Your task to perform on an android device: Open Youtube and go to the subscriptions tab Image 0: 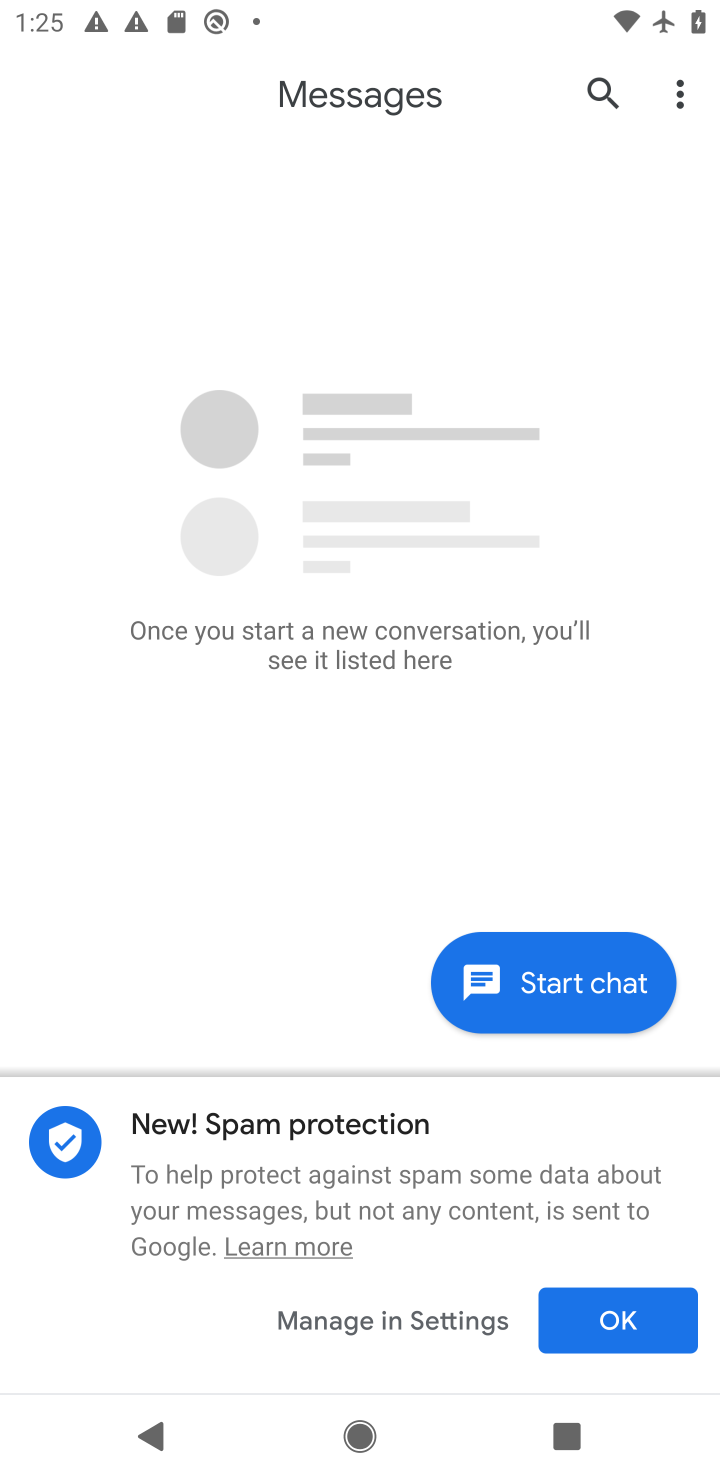
Step 0: task complete